Your task to perform on an android device: Open sound settings Image 0: 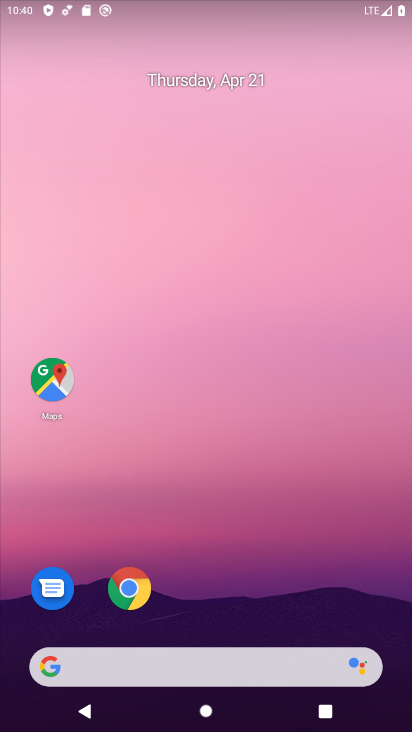
Step 0: drag from (212, 629) to (209, 336)
Your task to perform on an android device: Open sound settings Image 1: 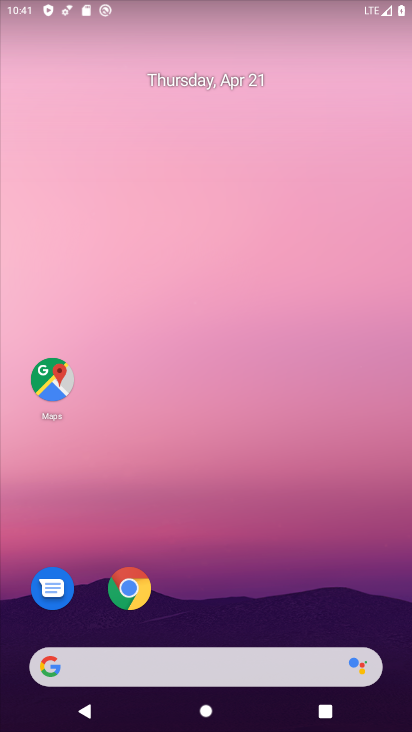
Step 1: drag from (141, 645) to (209, 203)
Your task to perform on an android device: Open sound settings Image 2: 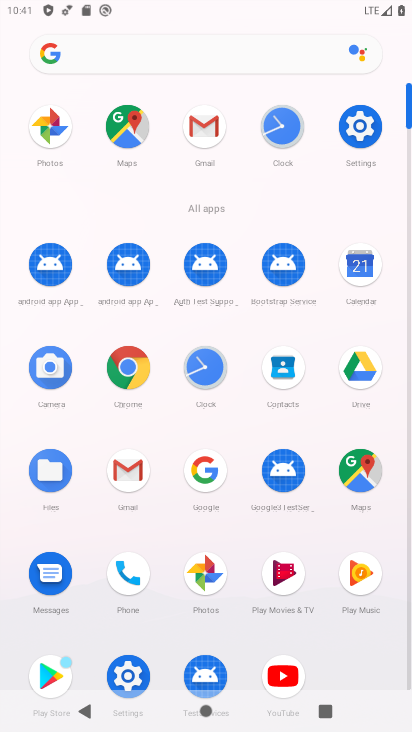
Step 2: click (127, 679)
Your task to perform on an android device: Open sound settings Image 3: 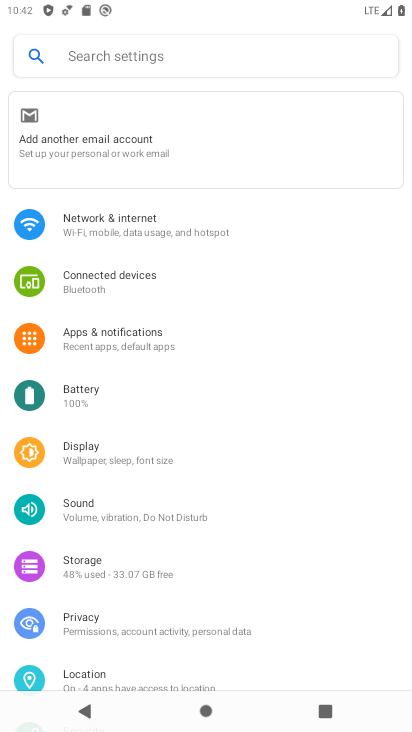
Step 3: click (107, 512)
Your task to perform on an android device: Open sound settings Image 4: 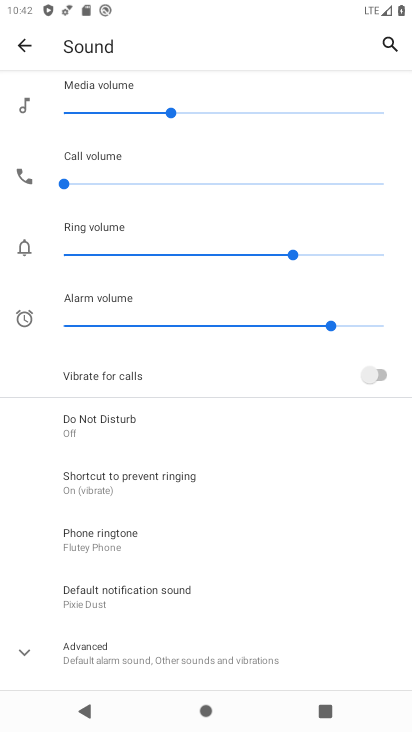
Step 4: click (131, 653)
Your task to perform on an android device: Open sound settings Image 5: 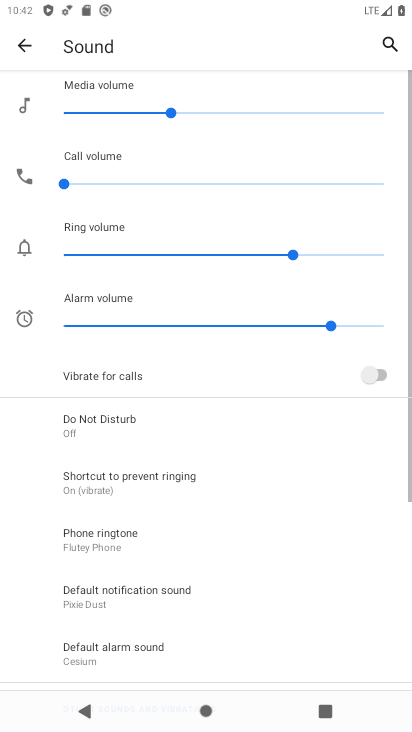
Step 5: task complete